Your task to perform on an android device: Go to privacy settings Image 0: 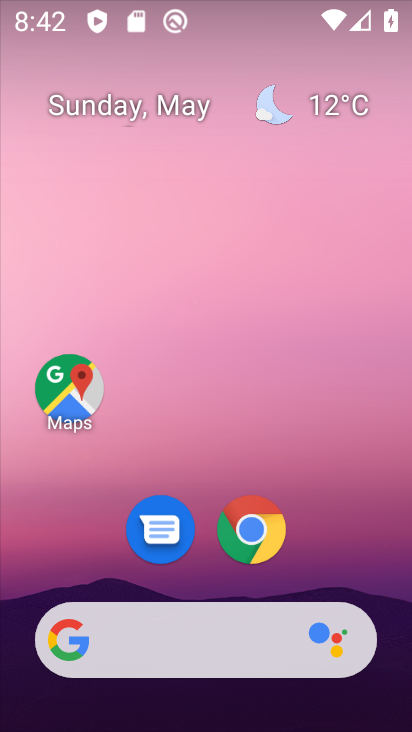
Step 0: drag from (329, 520) to (277, 72)
Your task to perform on an android device: Go to privacy settings Image 1: 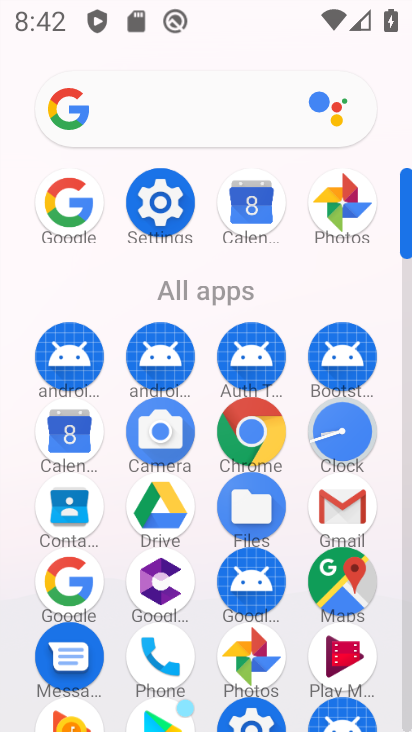
Step 1: click (140, 199)
Your task to perform on an android device: Go to privacy settings Image 2: 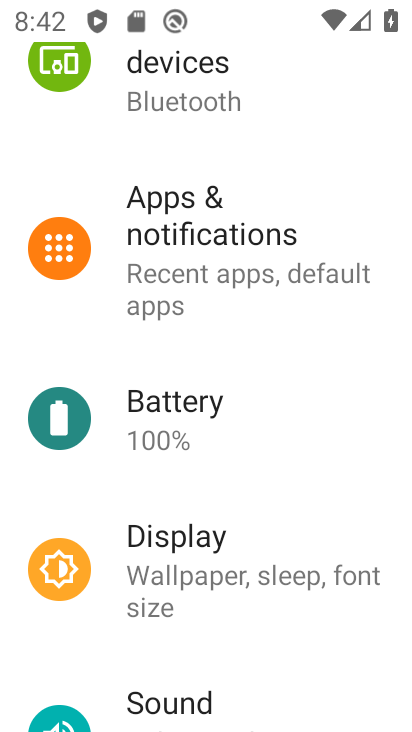
Step 2: drag from (239, 633) to (264, 152)
Your task to perform on an android device: Go to privacy settings Image 3: 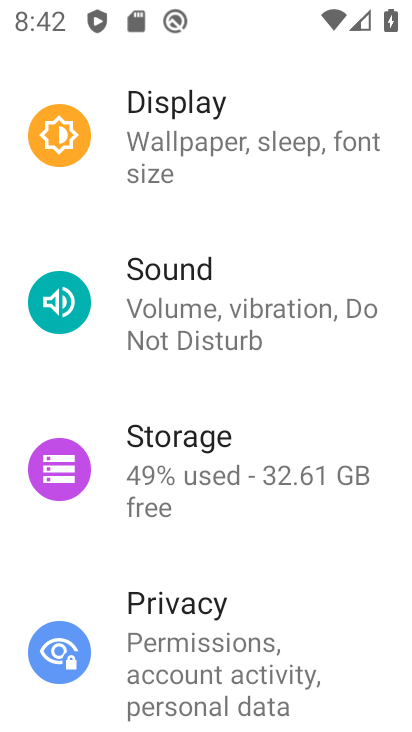
Step 3: click (199, 612)
Your task to perform on an android device: Go to privacy settings Image 4: 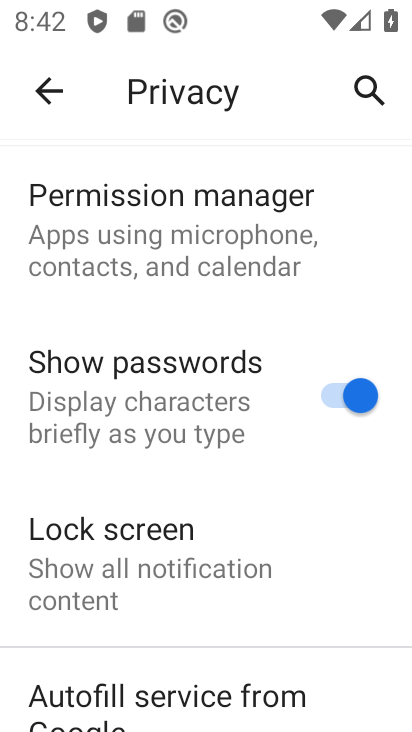
Step 4: task complete